Your task to perform on an android device: turn on bluetooth scan Image 0: 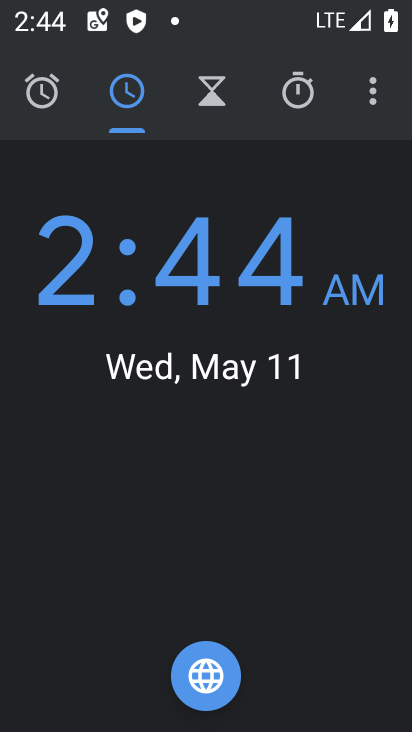
Step 0: press back button
Your task to perform on an android device: turn on bluetooth scan Image 1: 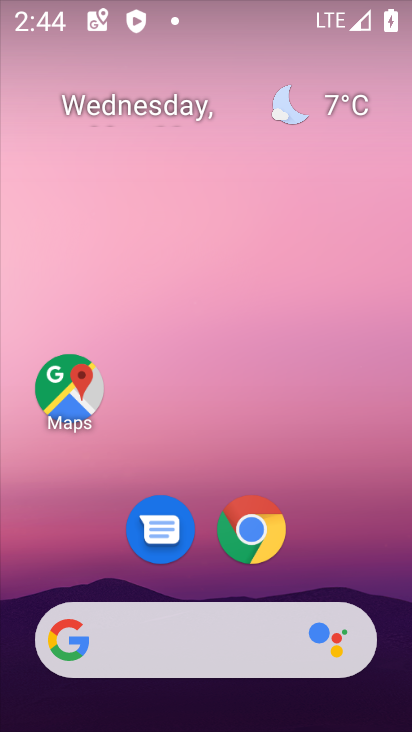
Step 1: drag from (65, 591) to (244, 86)
Your task to perform on an android device: turn on bluetooth scan Image 2: 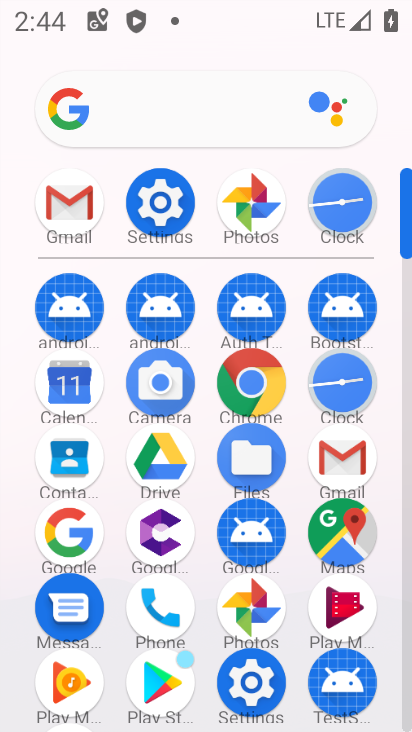
Step 2: click (144, 215)
Your task to perform on an android device: turn on bluetooth scan Image 3: 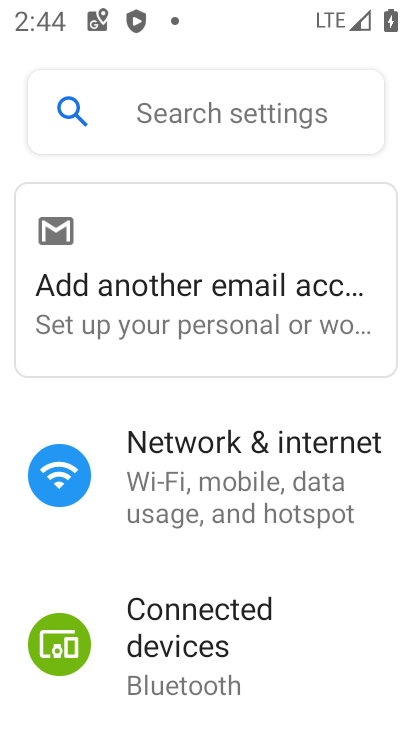
Step 3: drag from (117, 642) to (237, 261)
Your task to perform on an android device: turn on bluetooth scan Image 4: 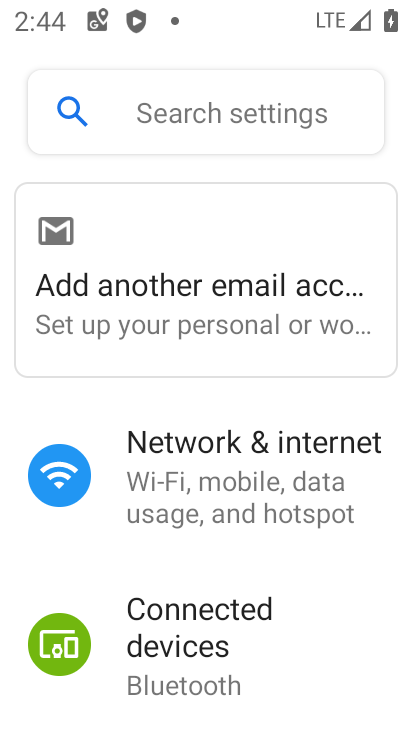
Step 4: drag from (4, 662) to (200, 231)
Your task to perform on an android device: turn on bluetooth scan Image 5: 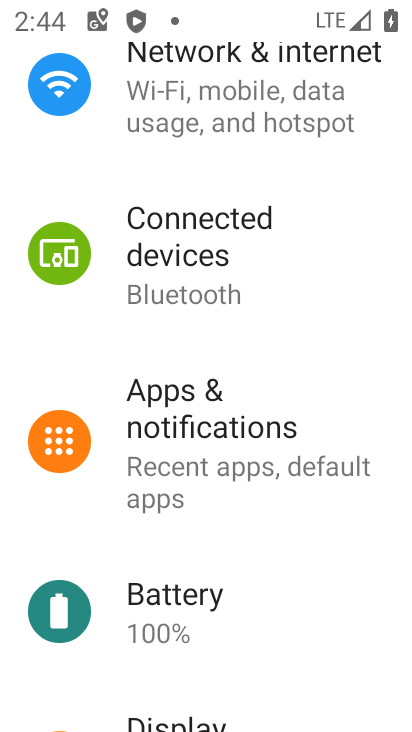
Step 5: drag from (61, 689) to (275, 223)
Your task to perform on an android device: turn on bluetooth scan Image 6: 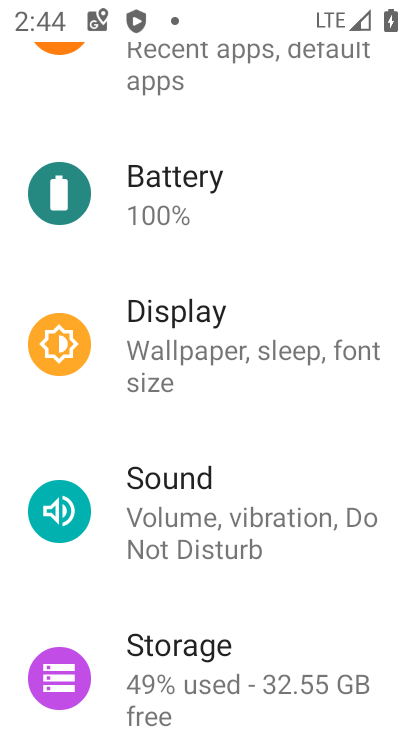
Step 6: drag from (39, 707) to (256, 213)
Your task to perform on an android device: turn on bluetooth scan Image 7: 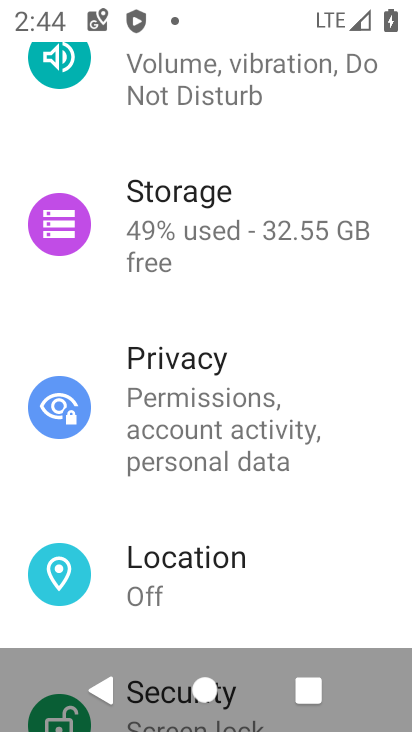
Step 7: click (156, 564)
Your task to perform on an android device: turn on bluetooth scan Image 8: 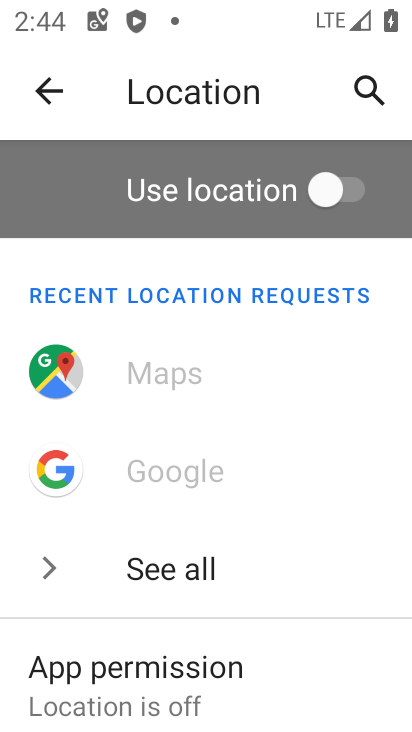
Step 8: drag from (178, 676) to (334, 207)
Your task to perform on an android device: turn on bluetooth scan Image 9: 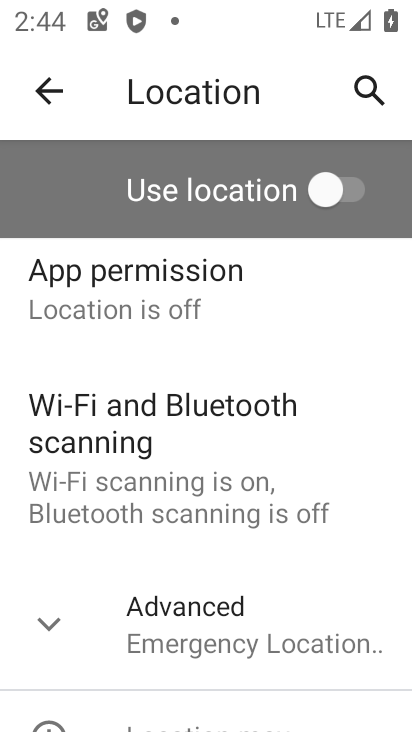
Step 9: click (157, 455)
Your task to perform on an android device: turn on bluetooth scan Image 10: 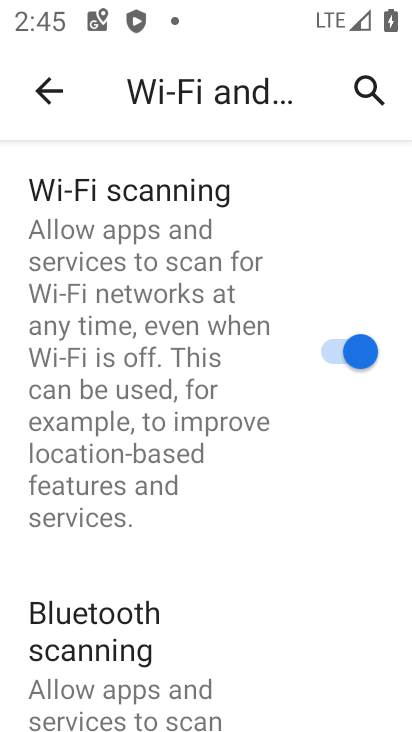
Step 10: drag from (52, 721) to (227, 268)
Your task to perform on an android device: turn on bluetooth scan Image 11: 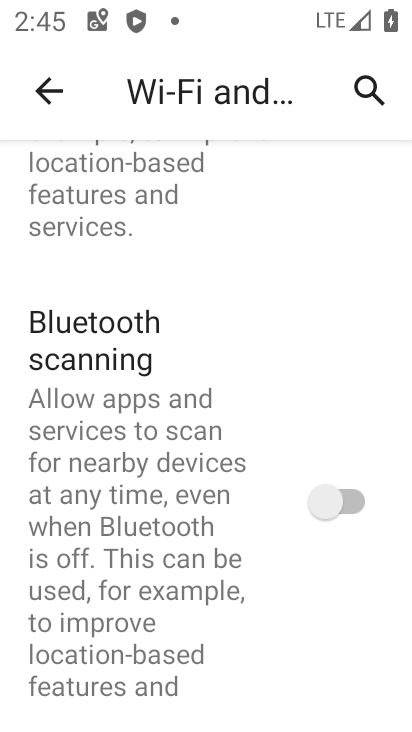
Step 11: click (336, 511)
Your task to perform on an android device: turn on bluetooth scan Image 12: 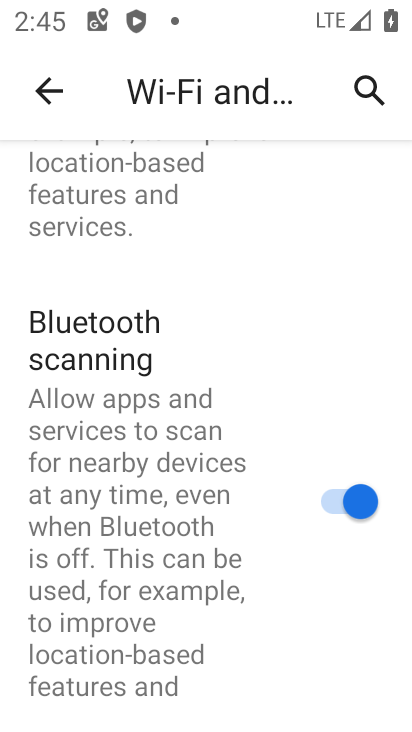
Step 12: task complete